Your task to perform on an android device: Set the phone to "Do not disturb". Image 0: 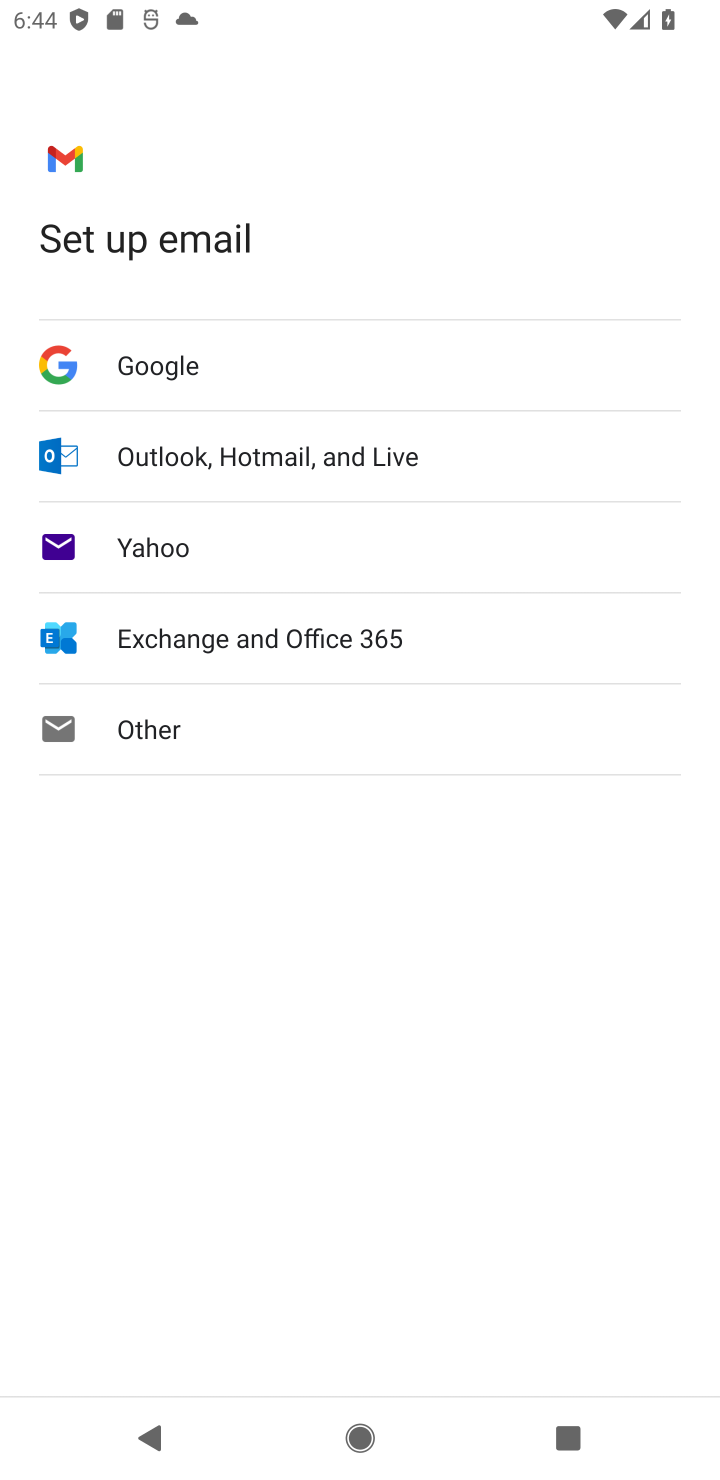
Step 0: press home button
Your task to perform on an android device: Set the phone to "Do not disturb". Image 1: 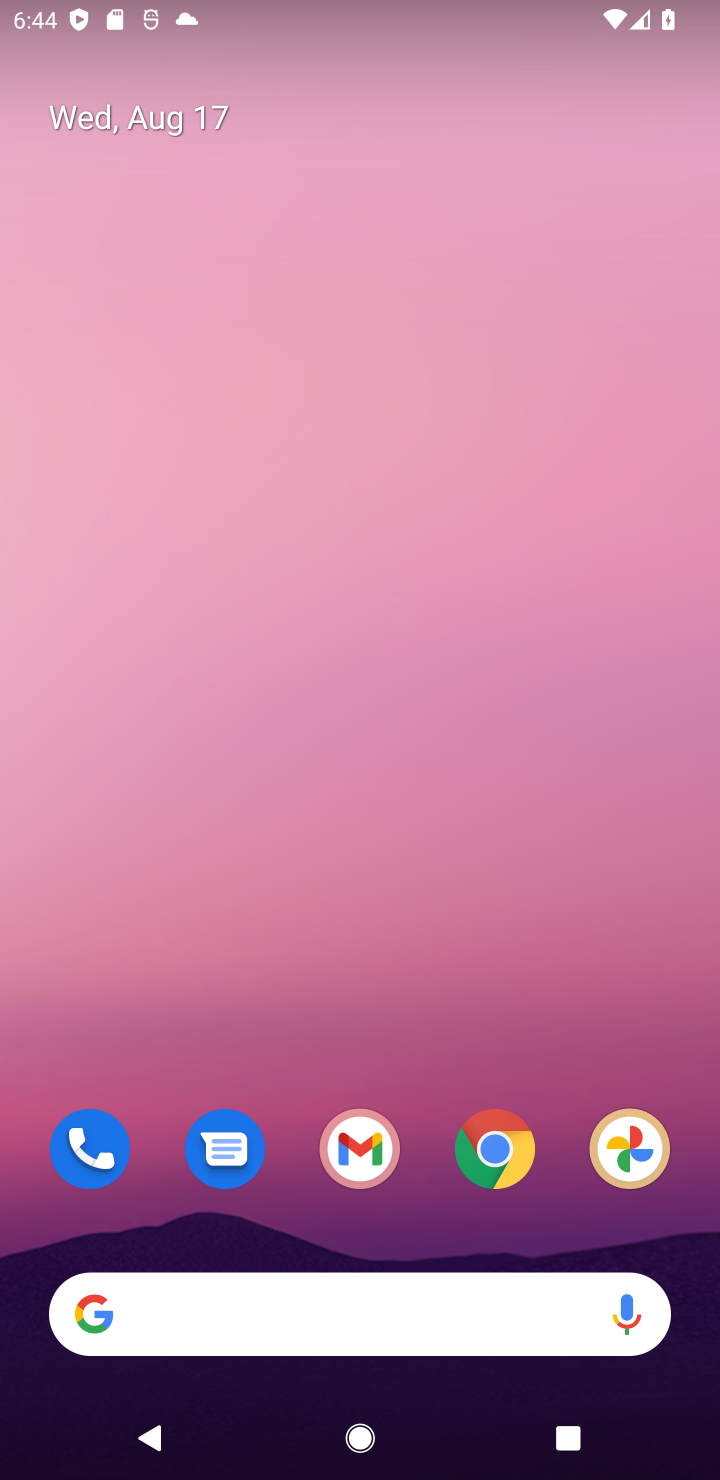
Step 1: drag from (309, 1247) to (417, 409)
Your task to perform on an android device: Set the phone to "Do not disturb". Image 2: 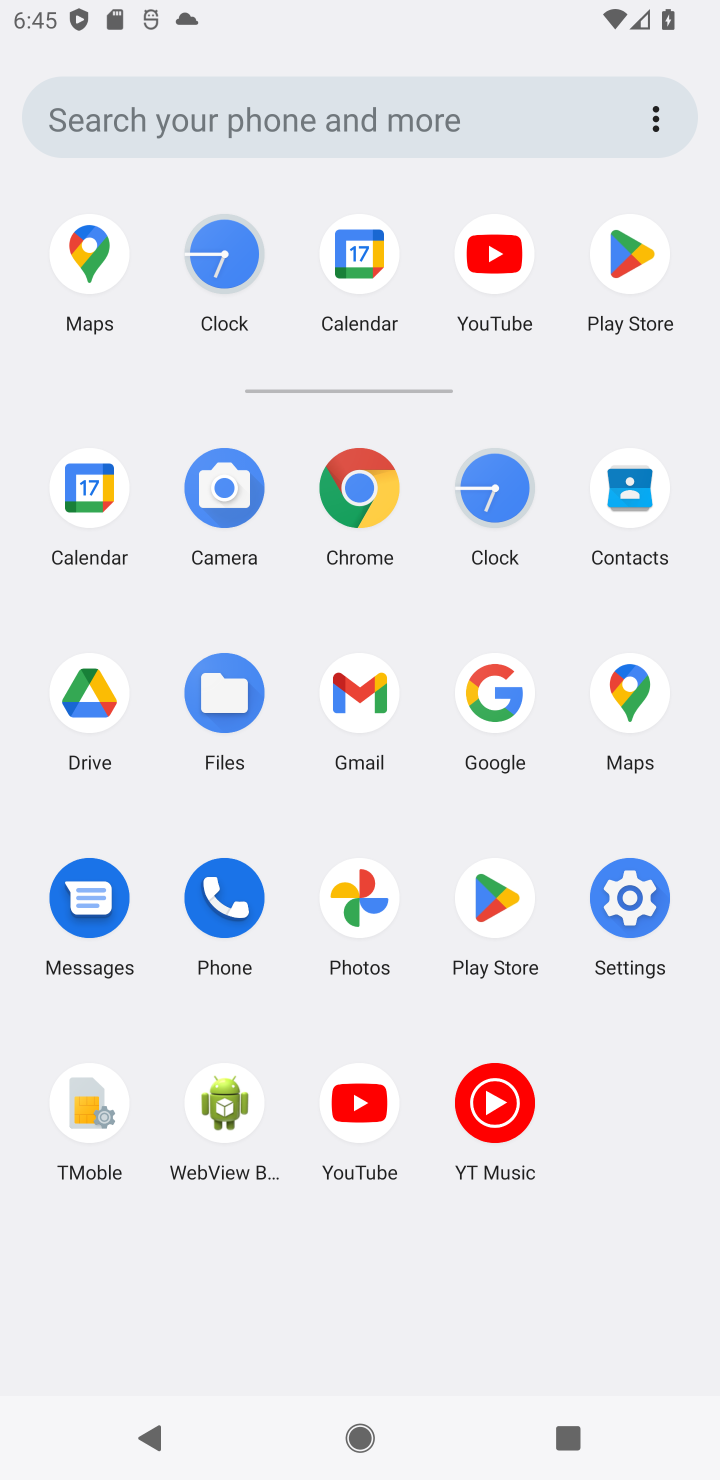
Step 2: click (621, 890)
Your task to perform on an android device: Set the phone to "Do not disturb". Image 3: 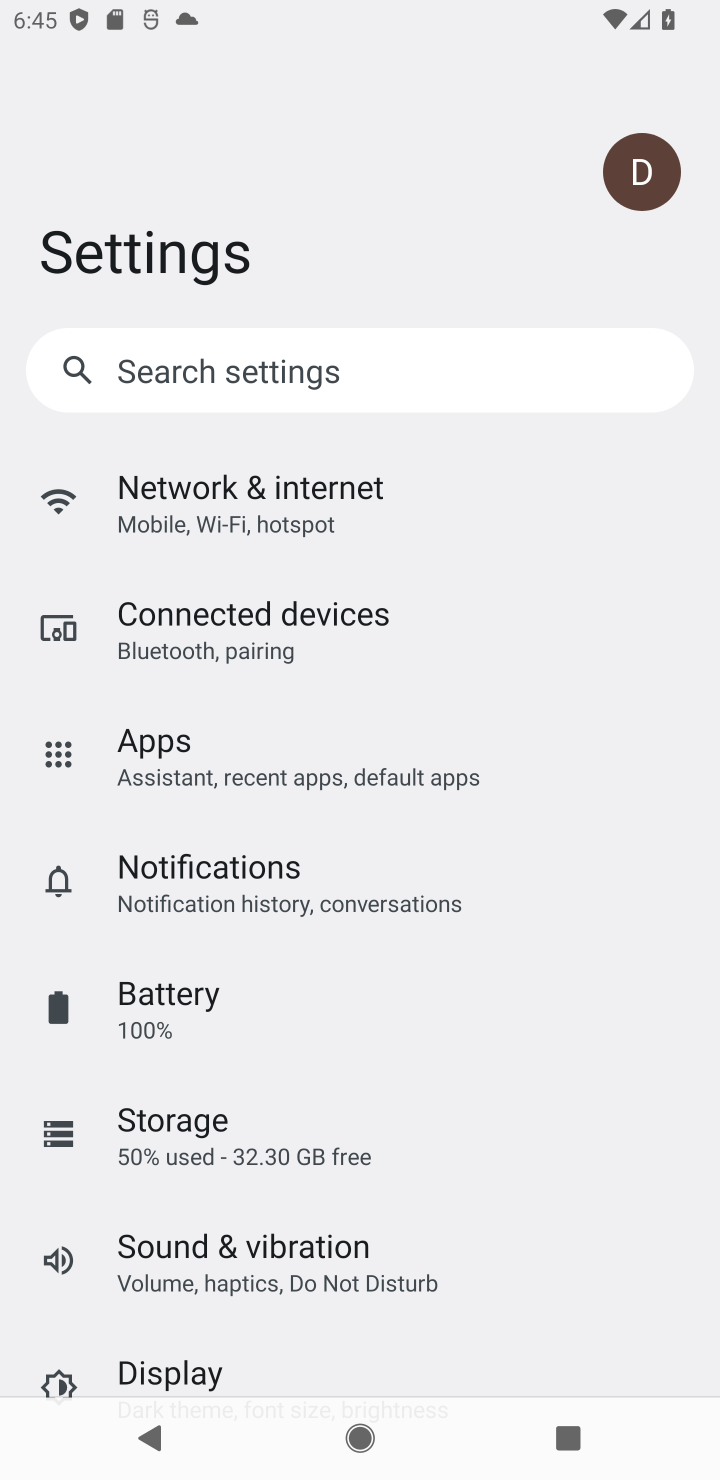
Step 3: click (186, 1250)
Your task to perform on an android device: Set the phone to "Do not disturb". Image 4: 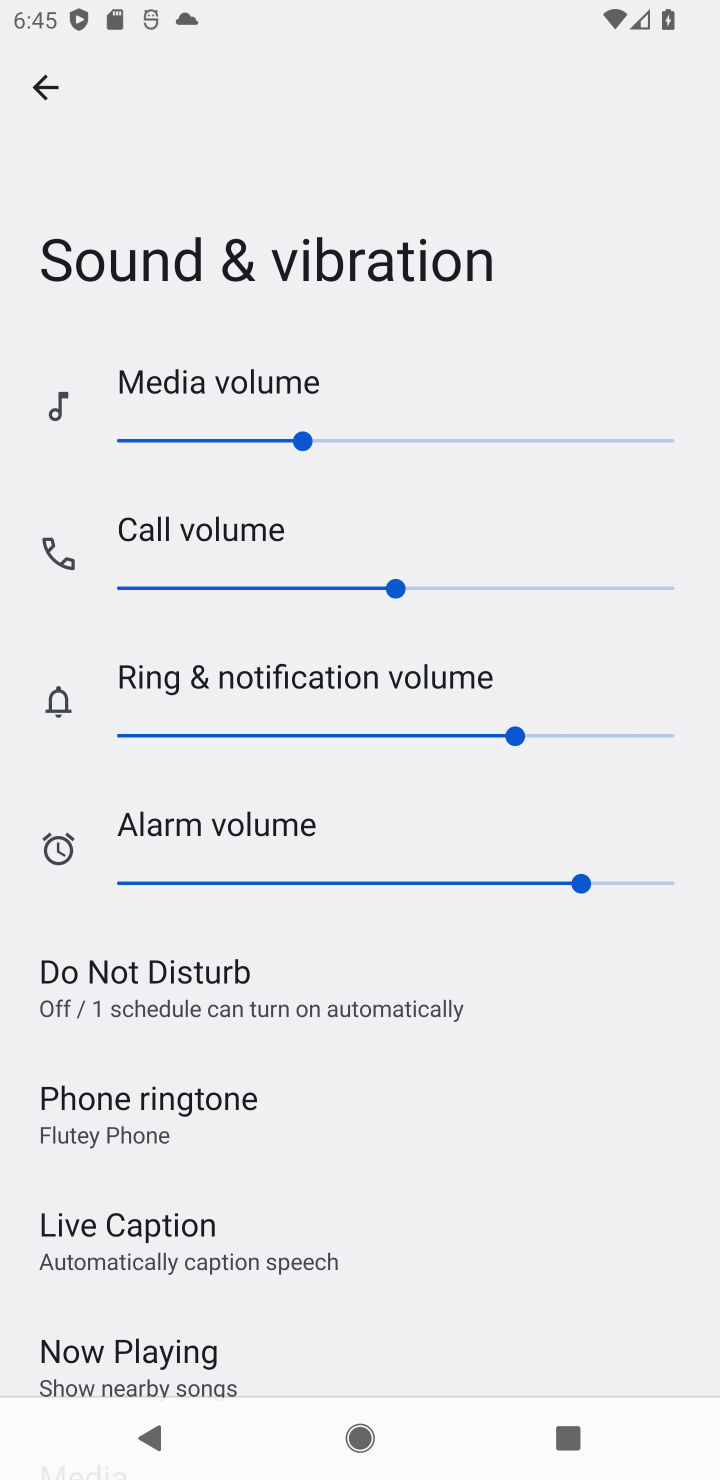
Step 4: click (124, 963)
Your task to perform on an android device: Set the phone to "Do not disturb". Image 5: 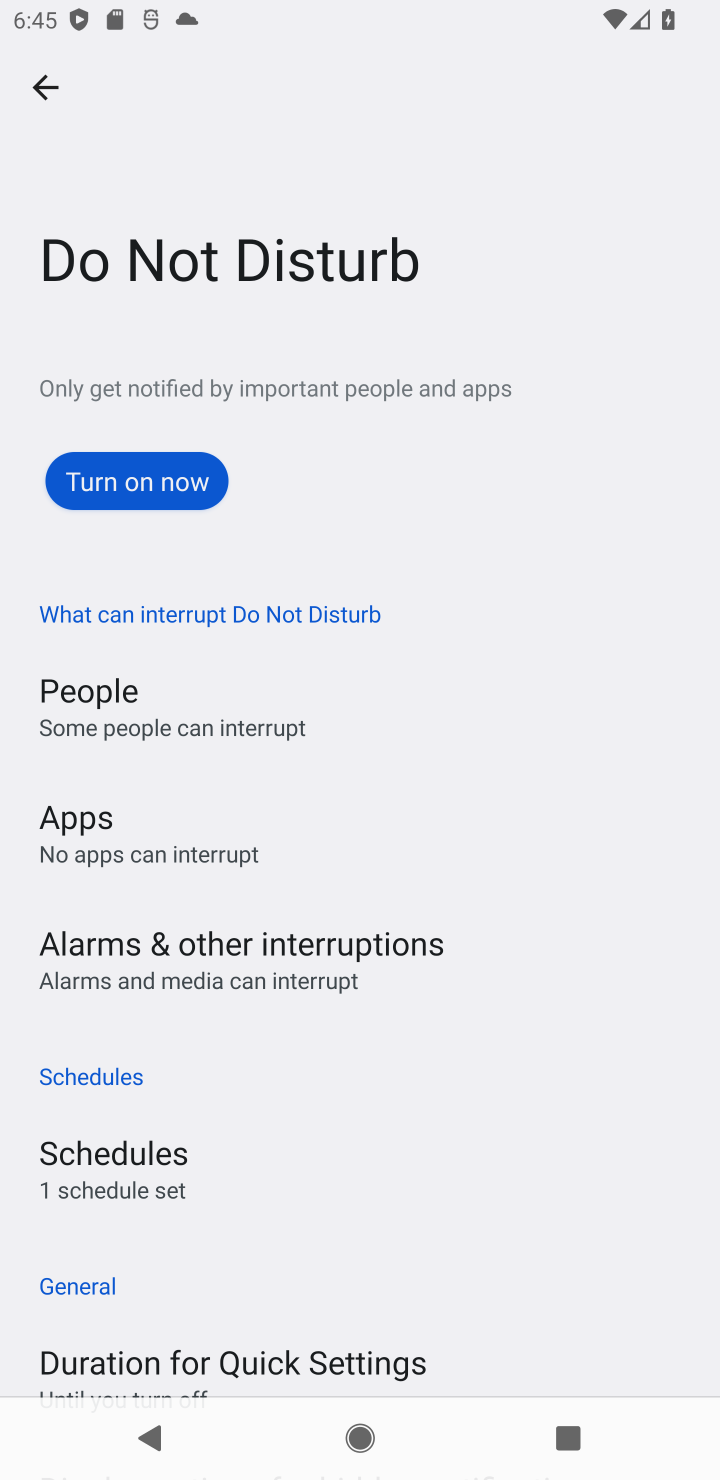
Step 5: click (147, 482)
Your task to perform on an android device: Set the phone to "Do not disturb". Image 6: 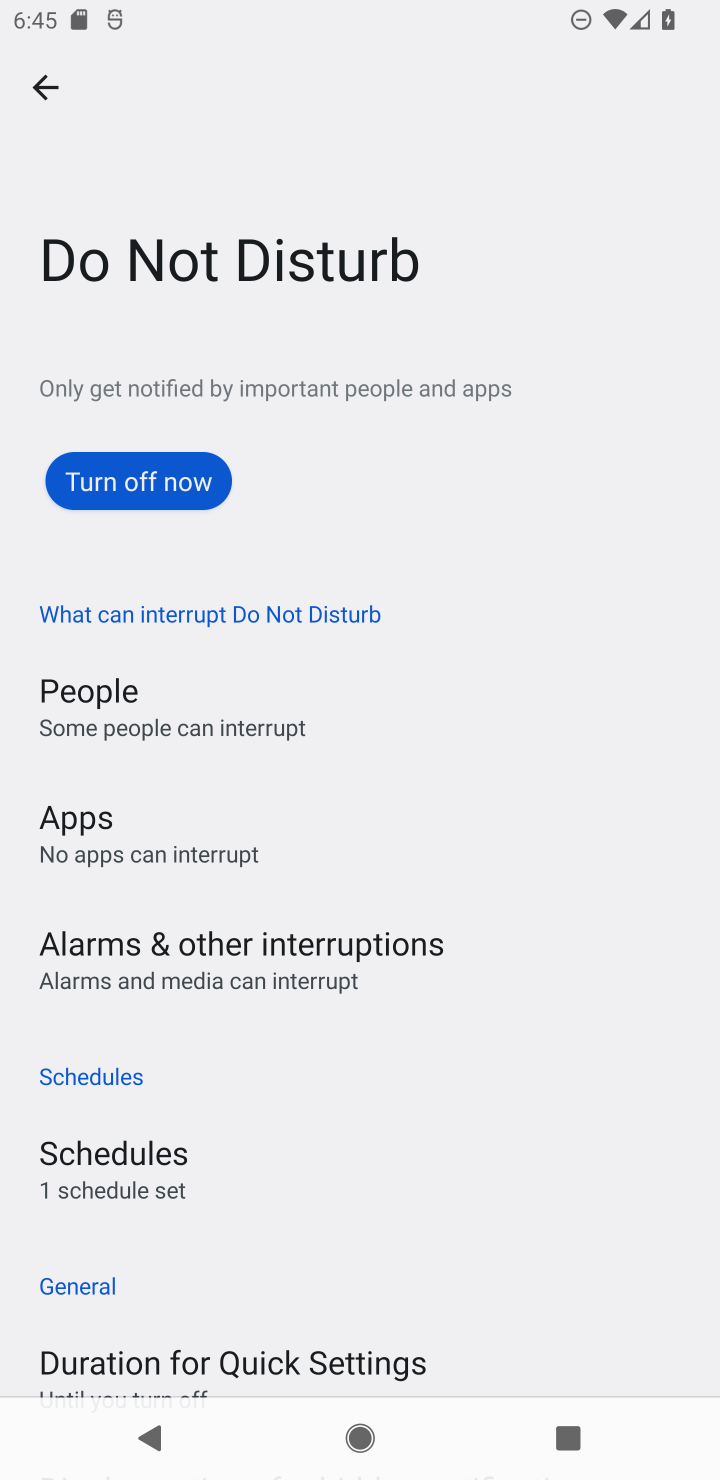
Step 6: task complete